Your task to perform on an android device: What's the weather going to be tomorrow? Image 0: 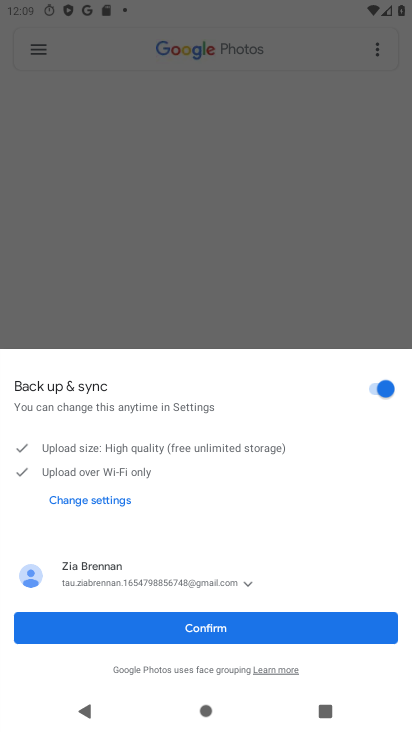
Step 0: press home button
Your task to perform on an android device: What's the weather going to be tomorrow? Image 1: 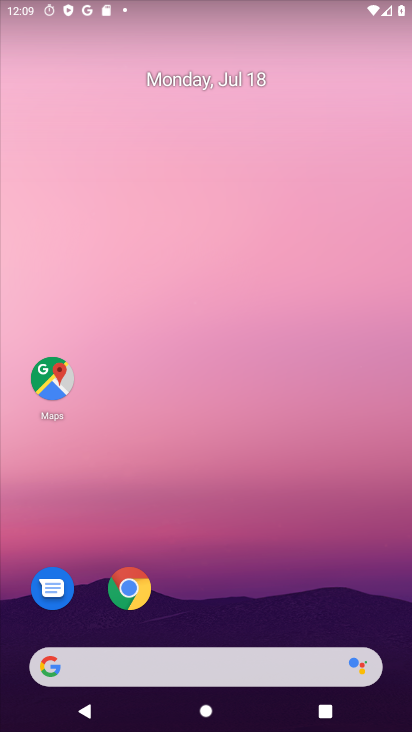
Step 1: click (193, 663)
Your task to perform on an android device: What's the weather going to be tomorrow? Image 2: 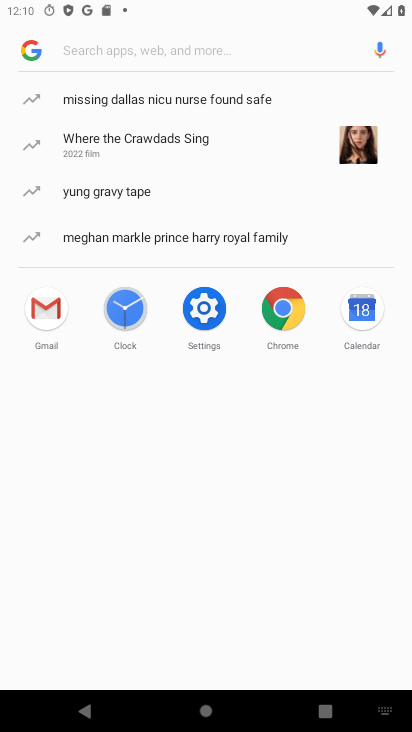
Step 2: type "what's the weather going to be tomorrow?"
Your task to perform on an android device: What's the weather going to be tomorrow? Image 3: 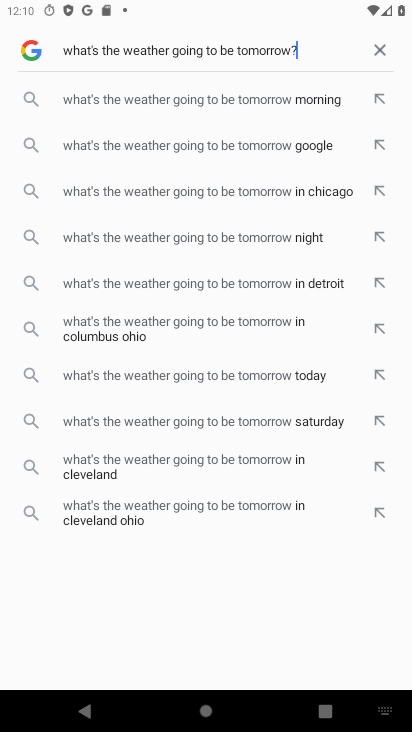
Step 3: click (260, 152)
Your task to perform on an android device: What's the weather going to be tomorrow? Image 4: 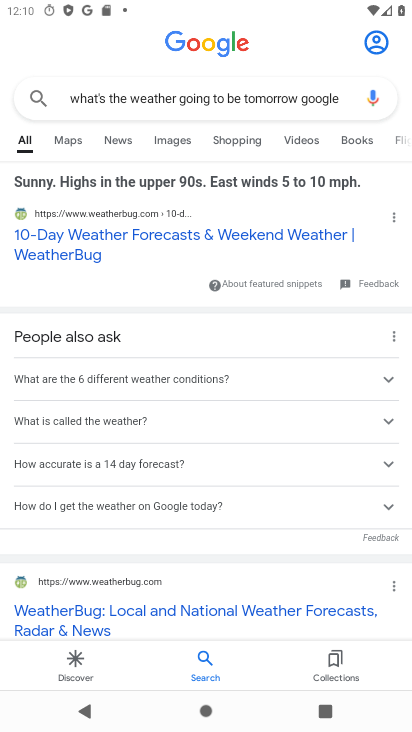
Step 4: task complete